Your task to perform on an android device: turn on the 12-hour format for clock Image 0: 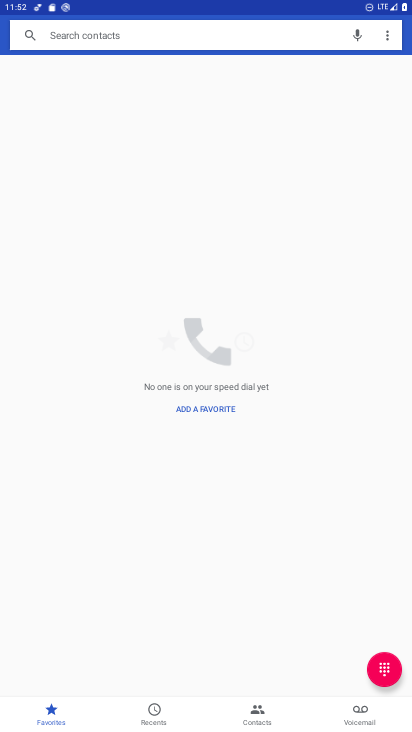
Step 0: press home button
Your task to perform on an android device: turn on the 12-hour format for clock Image 1: 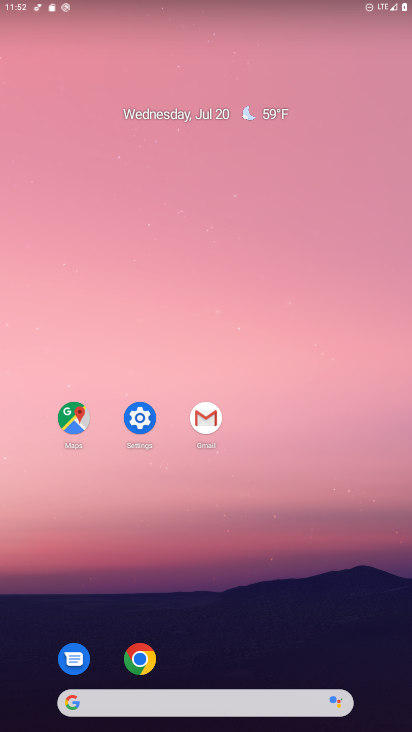
Step 1: drag from (380, 611) to (361, 99)
Your task to perform on an android device: turn on the 12-hour format for clock Image 2: 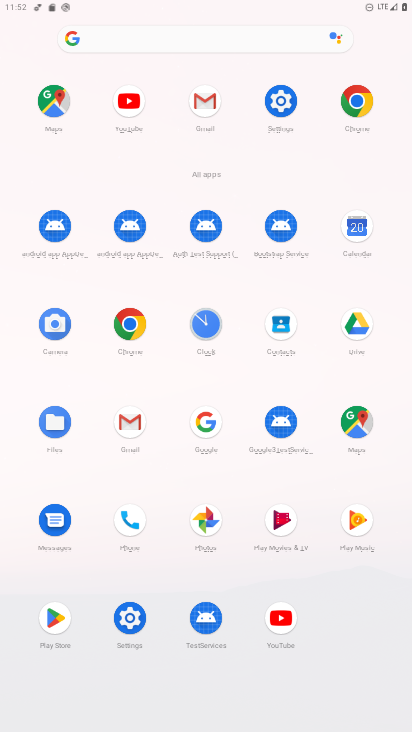
Step 2: click (212, 337)
Your task to perform on an android device: turn on the 12-hour format for clock Image 3: 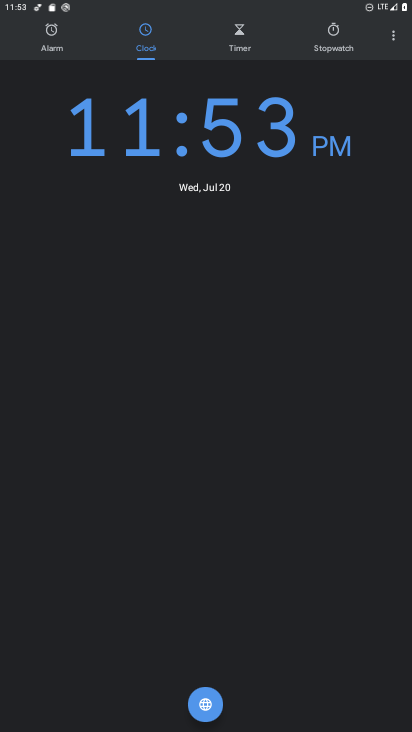
Step 3: click (390, 35)
Your task to perform on an android device: turn on the 12-hour format for clock Image 4: 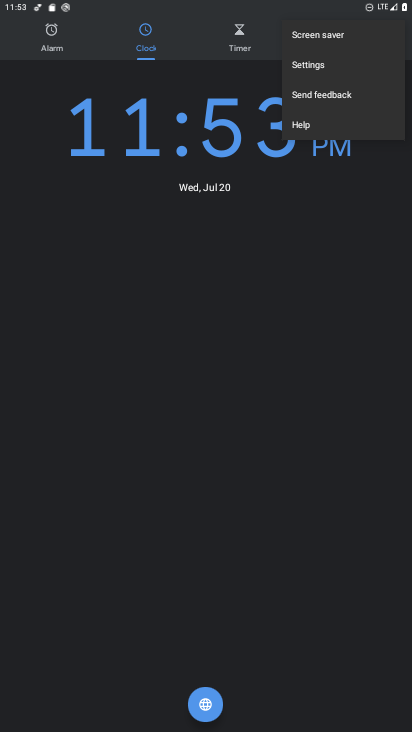
Step 4: click (317, 67)
Your task to perform on an android device: turn on the 12-hour format for clock Image 5: 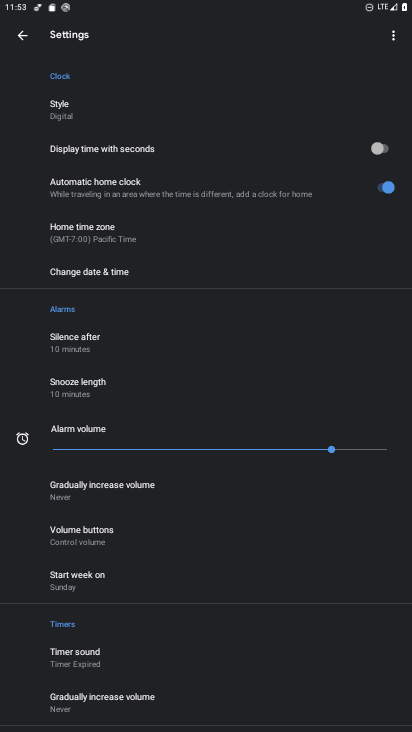
Step 5: click (81, 274)
Your task to perform on an android device: turn on the 12-hour format for clock Image 6: 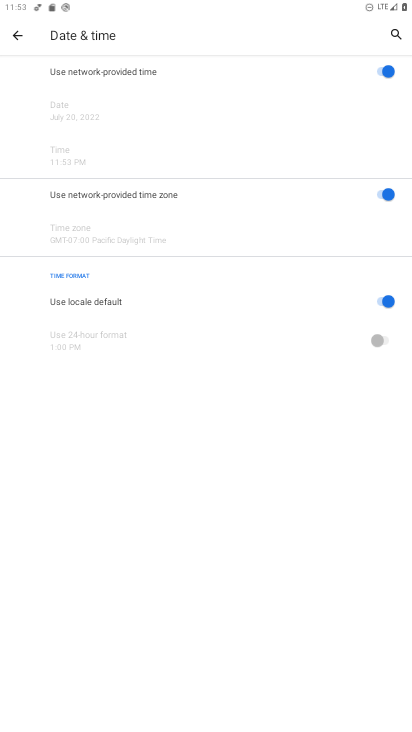
Step 6: task complete